Your task to perform on an android device: open app "Firefox Browser" (install if not already installed) and enter user name: "hashed@outlook.com" and password: "congestive" Image 0: 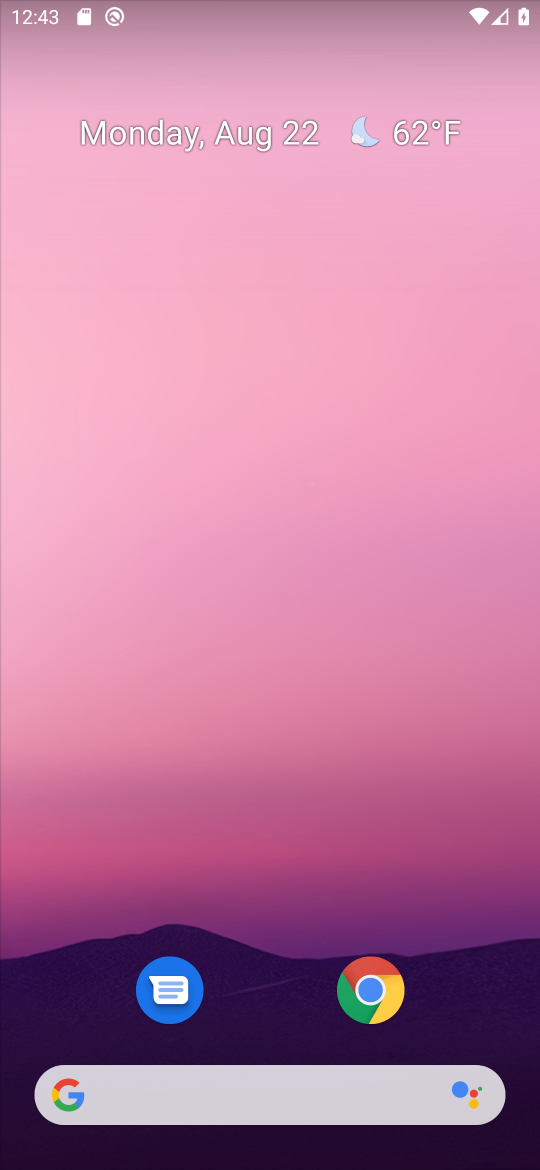
Step 0: drag from (253, 941) to (281, 339)
Your task to perform on an android device: open app "Firefox Browser" (install if not already installed) and enter user name: "hashed@outlook.com" and password: "congestive" Image 1: 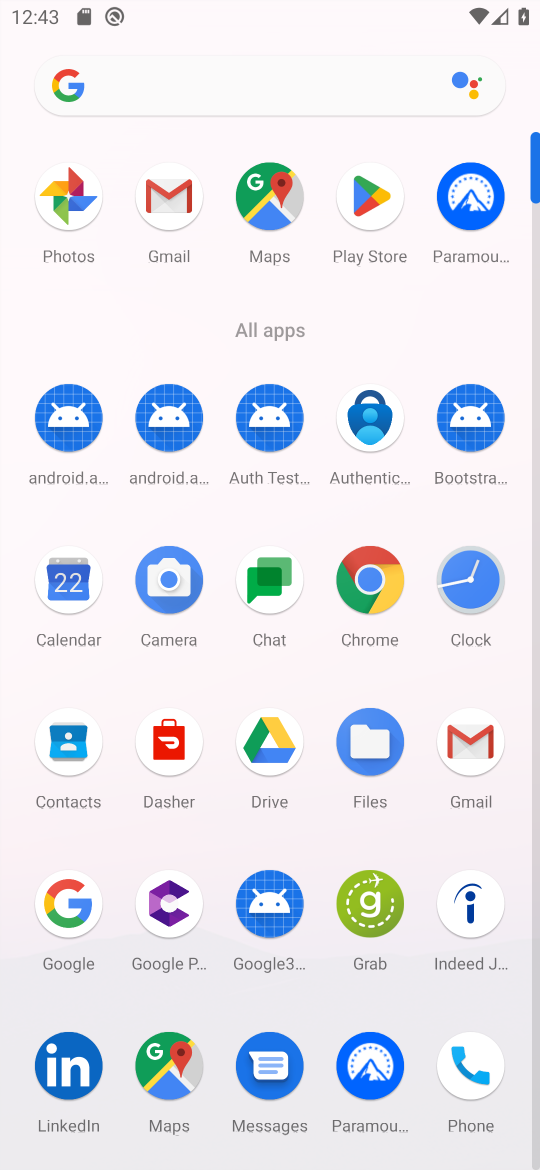
Step 1: click (377, 186)
Your task to perform on an android device: open app "Firefox Browser" (install if not already installed) and enter user name: "hashed@outlook.com" and password: "congestive" Image 2: 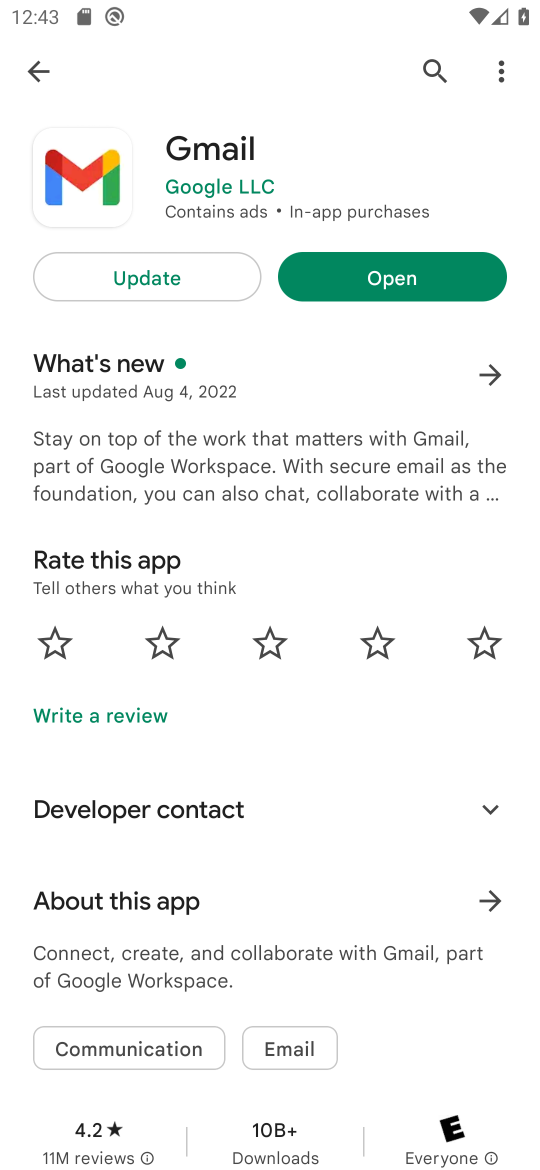
Step 2: click (434, 59)
Your task to perform on an android device: open app "Firefox Browser" (install if not already installed) and enter user name: "hashed@outlook.com" and password: "congestive" Image 3: 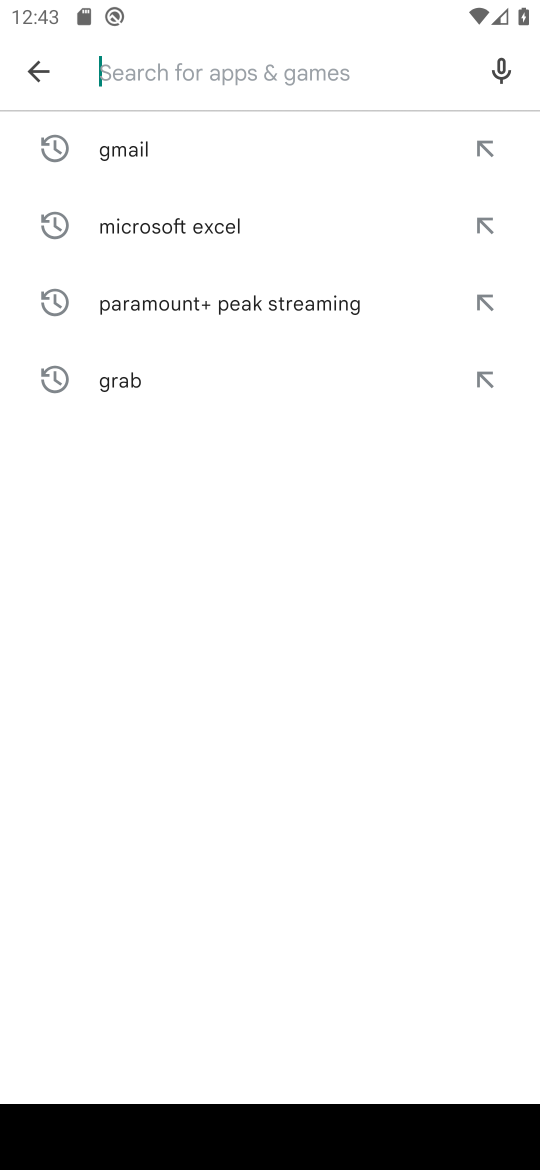
Step 3: type "Firefox Browser"
Your task to perform on an android device: open app "Firefox Browser" (install if not already installed) and enter user name: "hashed@outlook.com" and password: "congestive" Image 4: 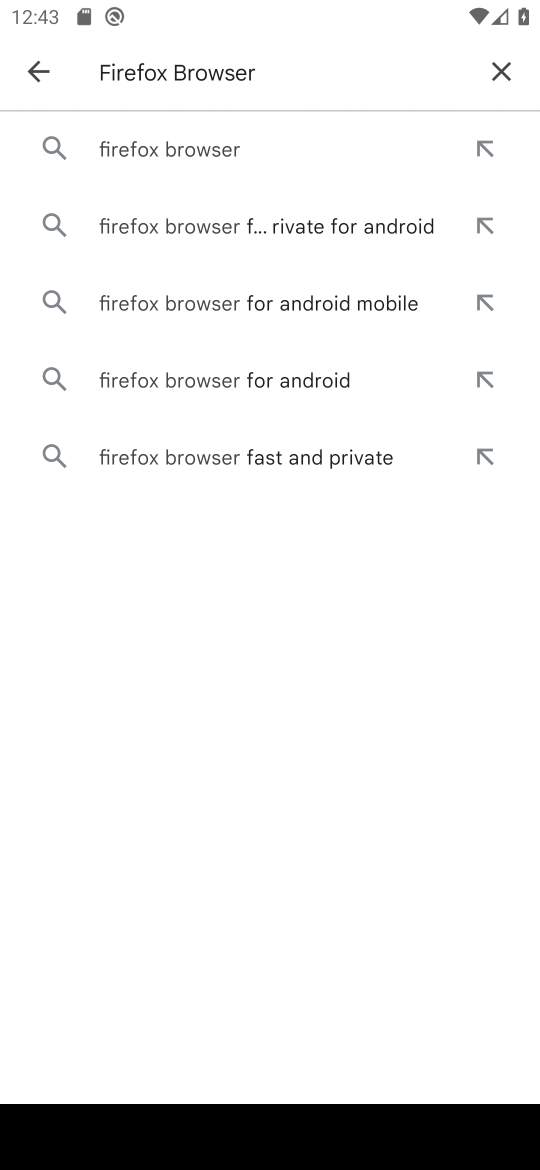
Step 4: click (176, 147)
Your task to perform on an android device: open app "Firefox Browser" (install if not already installed) and enter user name: "hashed@outlook.com" and password: "congestive" Image 5: 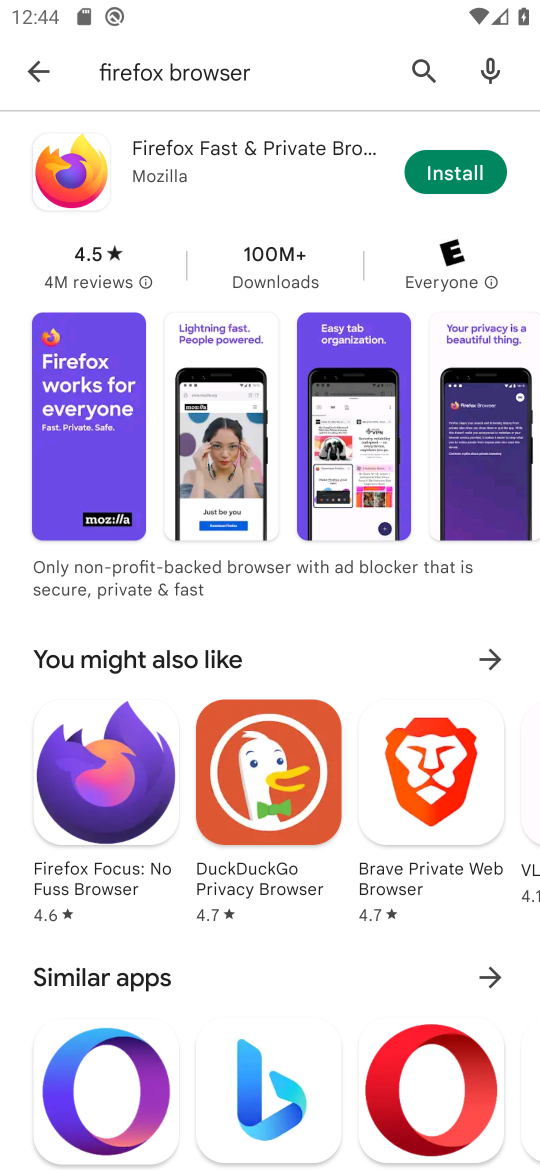
Step 5: click (448, 182)
Your task to perform on an android device: open app "Firefox Browser" (install if not already installed) and enter user name: "hashed@outlook.com" and password: "congestive" Image 6: 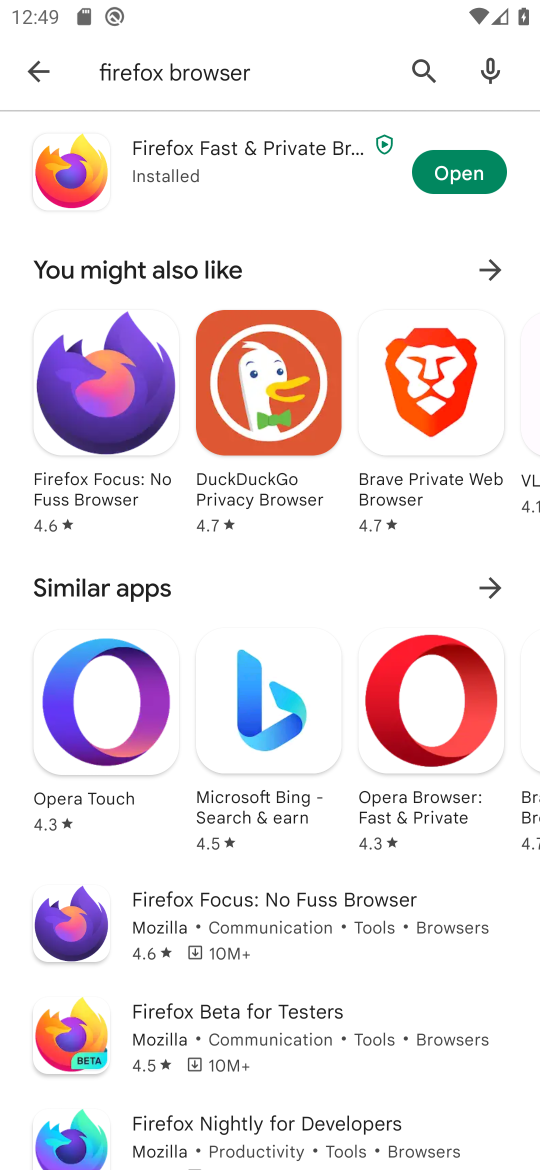
Step 6: click (466, 172)
Your task to perform on an android device: open app "Firefox Browser" (install if not already installed) and enter user name: "hashed@outlook.com" and password: "congestive" Image 7: 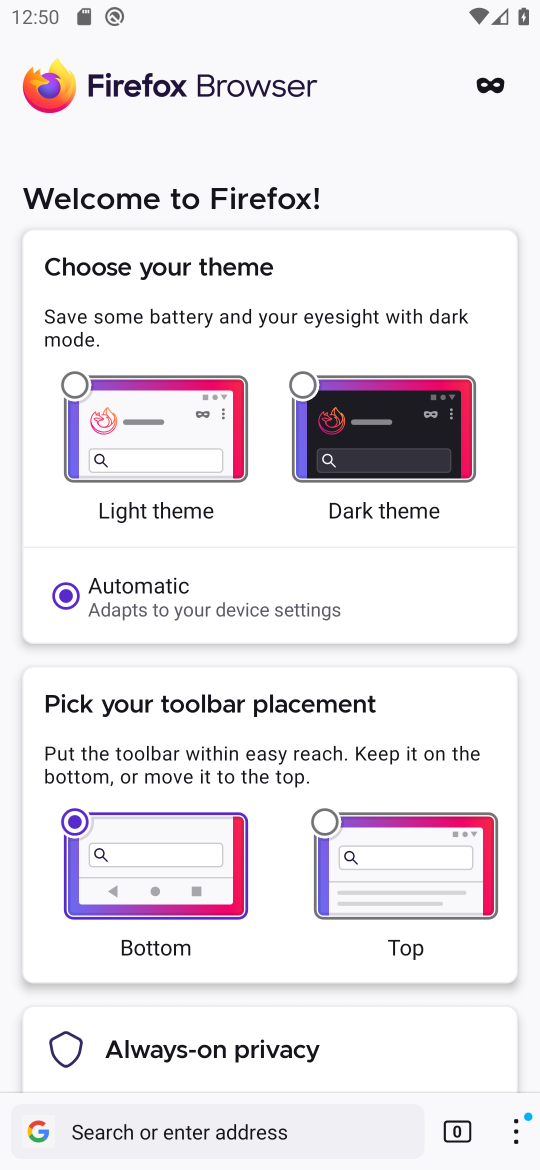
Step 7: task complete